Your task to perform on an android device: Open calendar and show me the second week of next month Image 0: 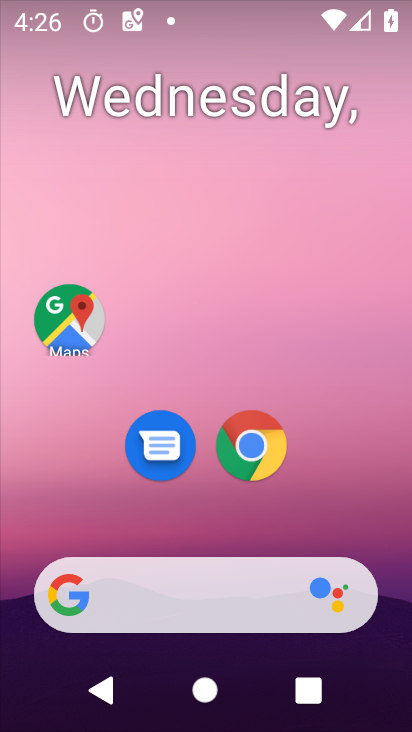
Step 0: drag from (221, 514) to (232, 141)
Your task to perform on an android device: Open calendar and show me the second week of next month Image 1: 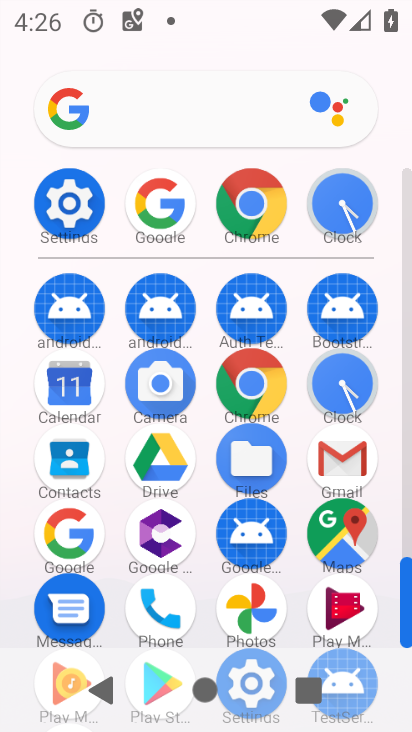
Step 1: click (70, 382)
Your task to perform on an android device: Open calendar and show me the second week of next month Image 2: 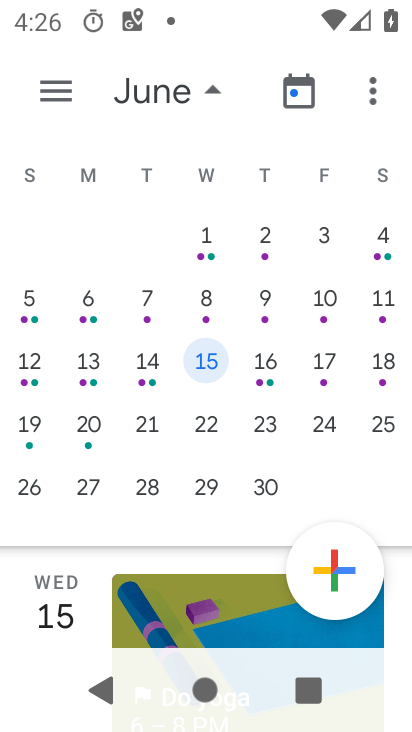
Step 2: click (253, 299)
Your task to perform on an android device: Open calendar and show me the second week of next month Image 3: 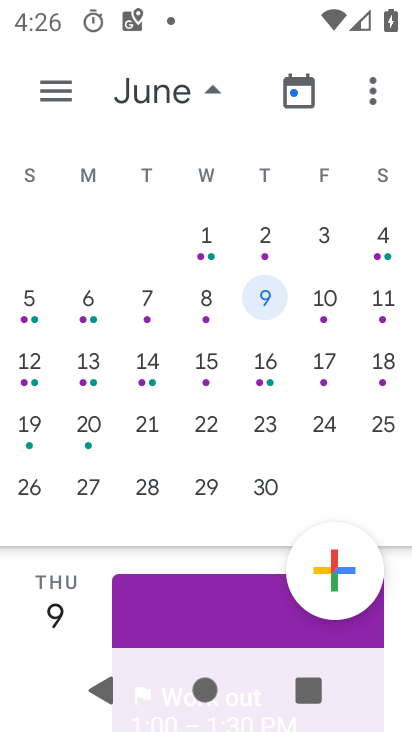
Step 3: task complete